Your task to perform on an android device: check the backup settings in the google photos Image 0: 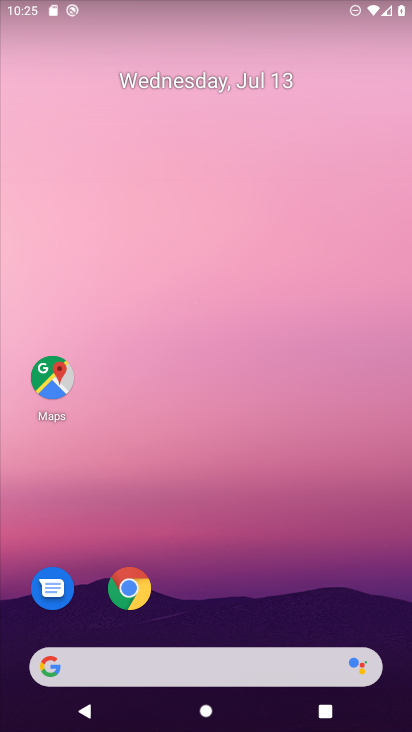
Step 0: drag from (245, 651) to (246, 105)
Your task to perform on an android device: check the backup settings in the google photos Image 1: 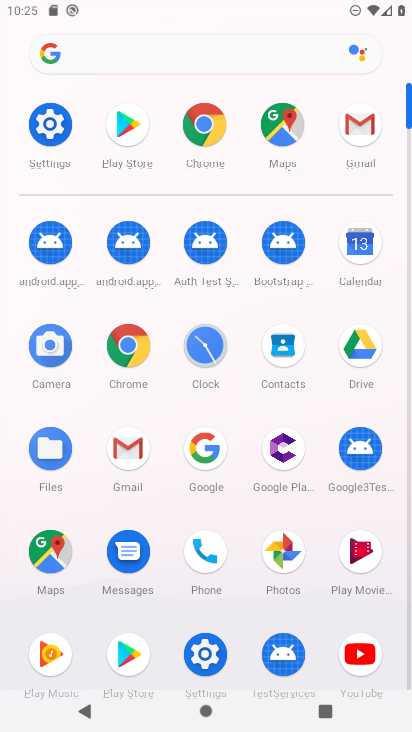
Step 1: click (289, 553)
Your task to perform on an android device: check the backup settings in the google photos Image 2: 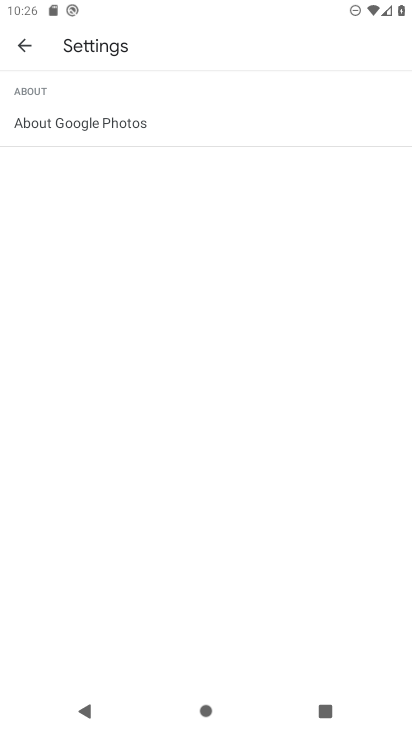
Step 2: click (22, 52)
Your task to perform on an android device: check the backup settings in the google photos Image 3: 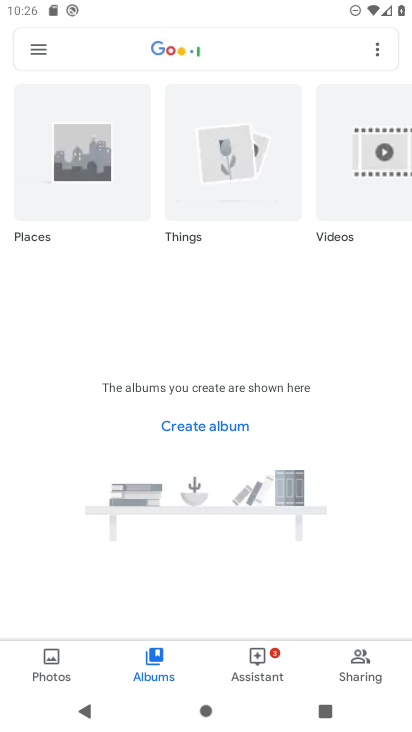
Step 3: click (20, 49)
Your task to perform on an android device: check the backup settings in the google photos Image 4: 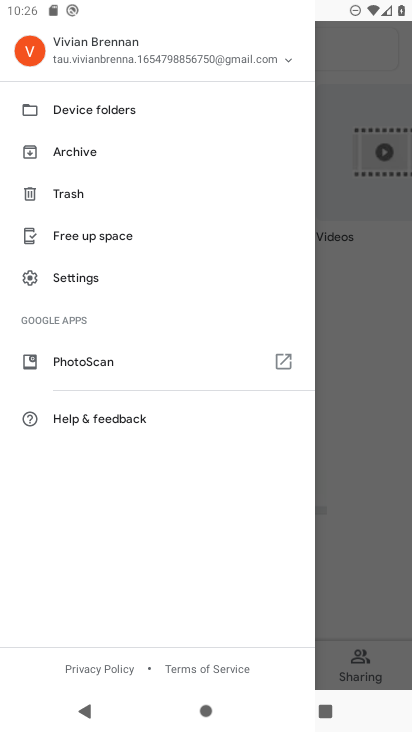
Step 4: click (68, 285)
Your task to perform on an android device: check the backup settings in the google photos Image 5: 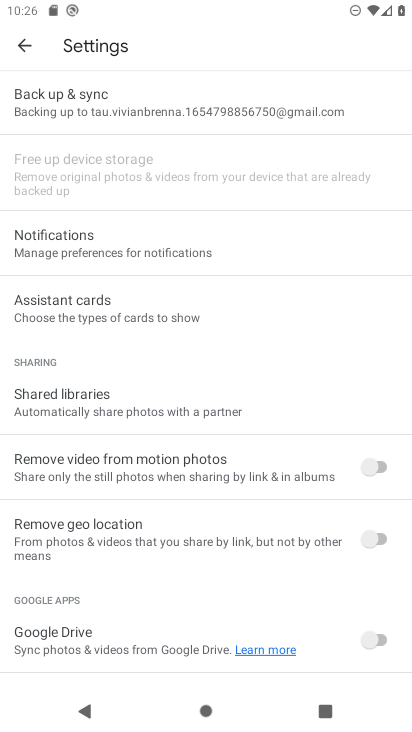
Step 5: click (102, 92)
Your task to perform on an android device: check the backup settings in the google photos Image 6: 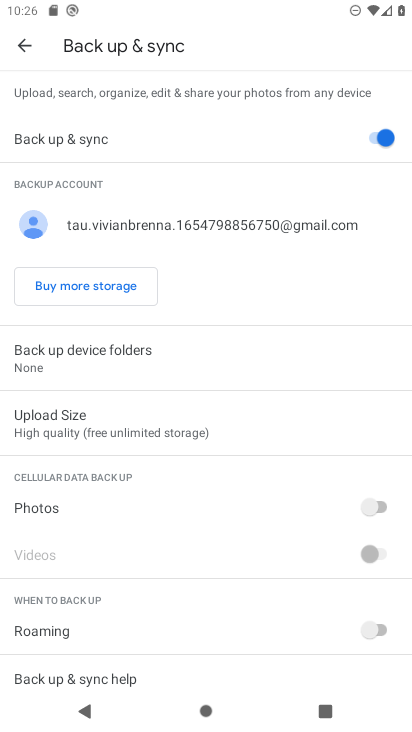
Step 6: task complete